Your task to perform on an android device: open app "eBay: The shopping marketplace" (install if not already installed) Image 0: 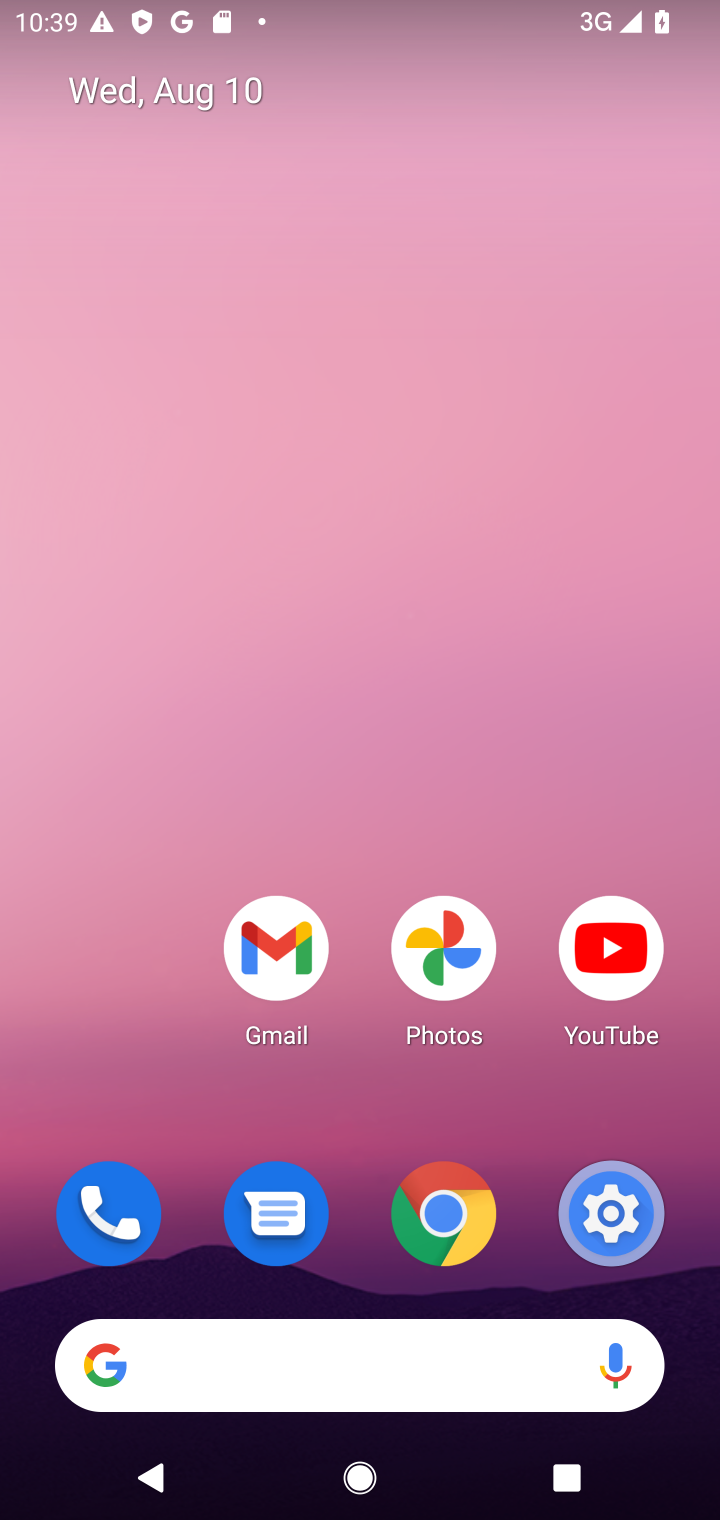
Step 0: drag from (397, 1239) to (465, 39)
Your task to perform on an android device: open app "eBay: The shopping marketplace" (install if not already installed) Image 1: 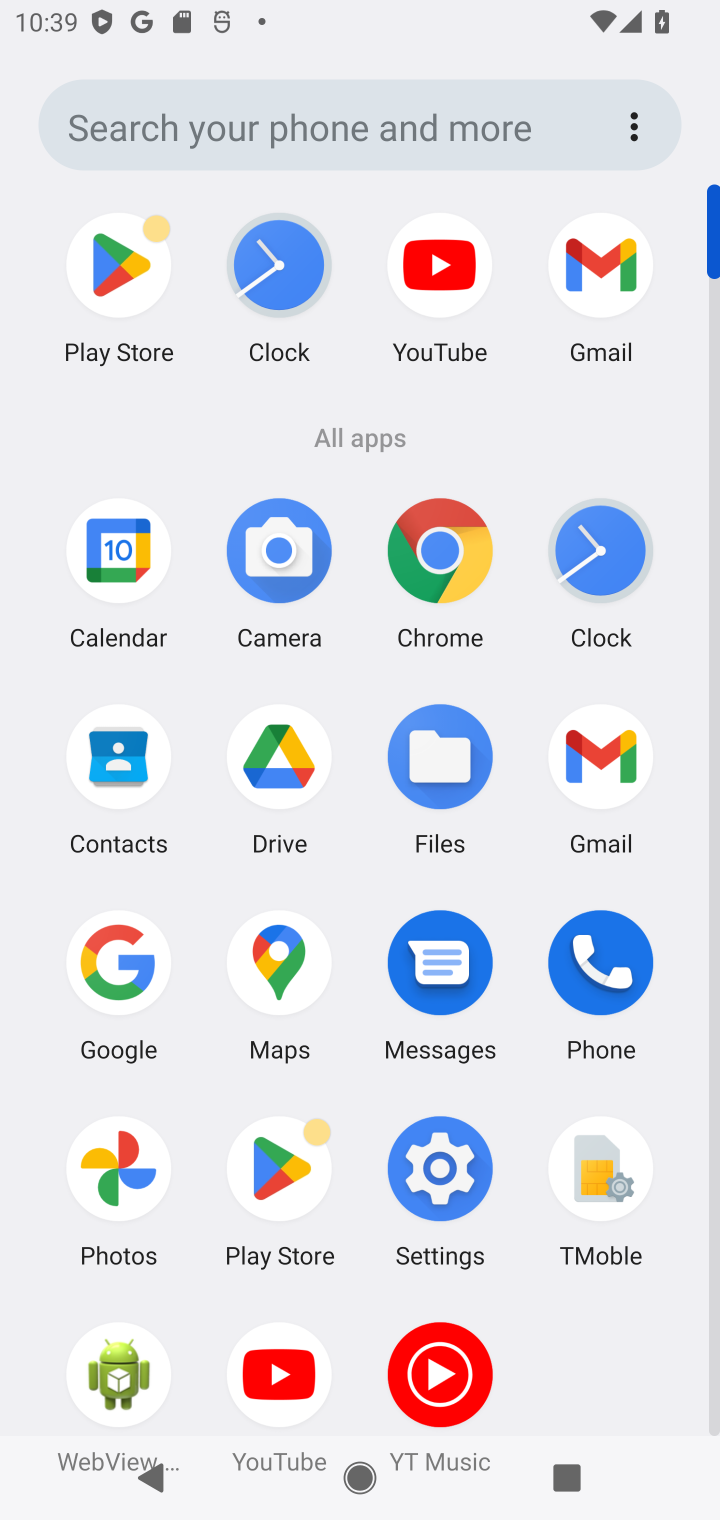
Step 1: click (127, 276)
Your task to perform on an android device: open app "eBay: The shopping marketplace" (install if not already installed) Image 2: 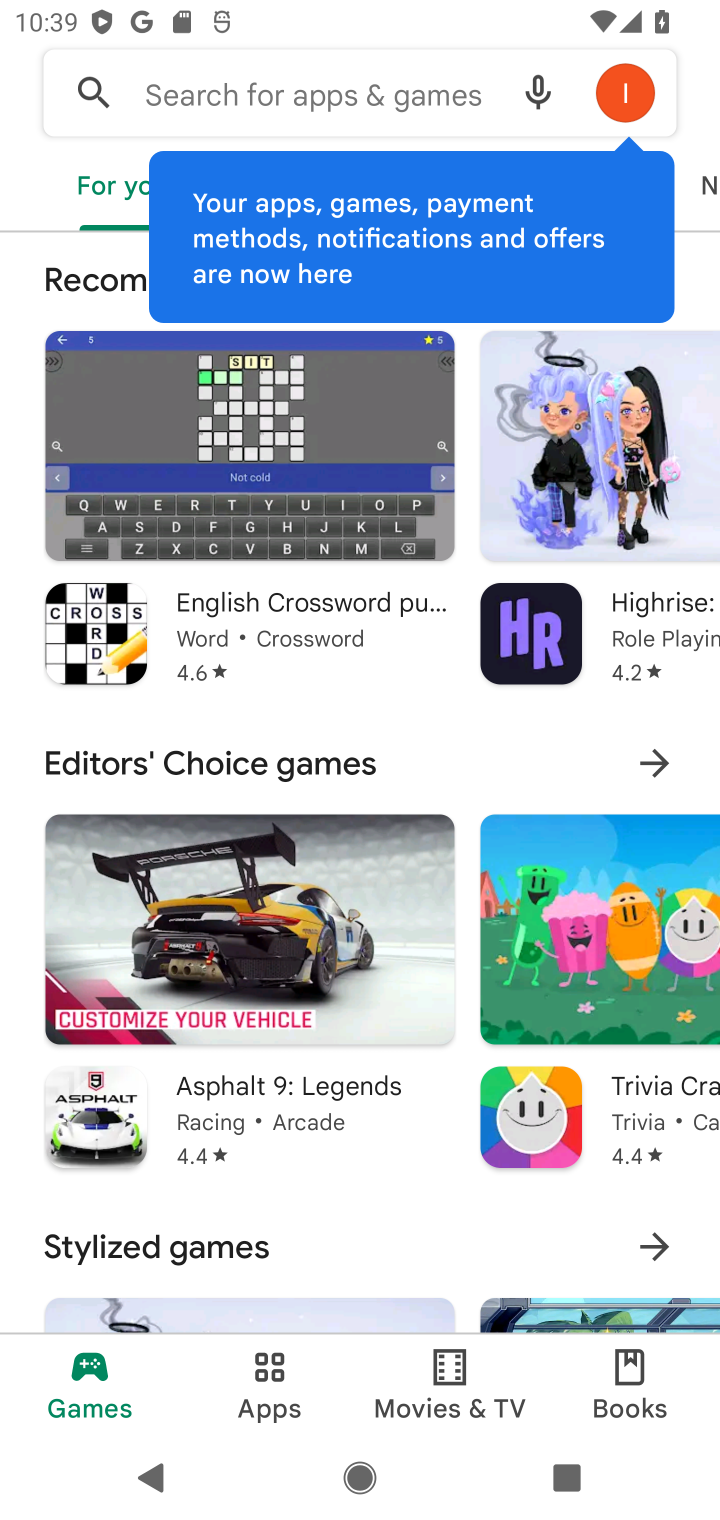
Step 2: click (386, 92)
Your task to perform on an android device: open app "eBay: The shopping marketplace" (install if not already installed) Image 3: 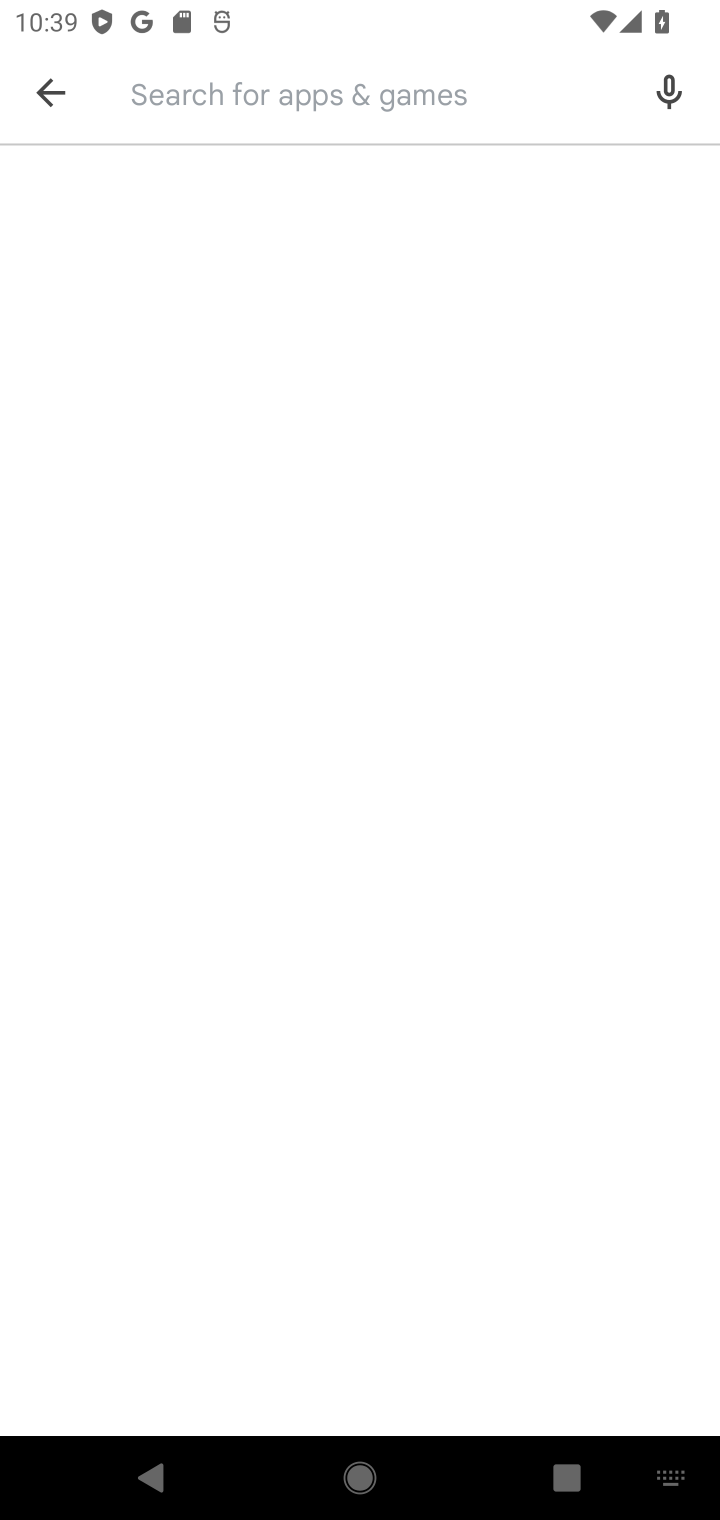
Step 3: click (285, 109)
Your task to perform on an android device: open app "eBay: The shopping marketplace" (install if not already installed) Image 4: 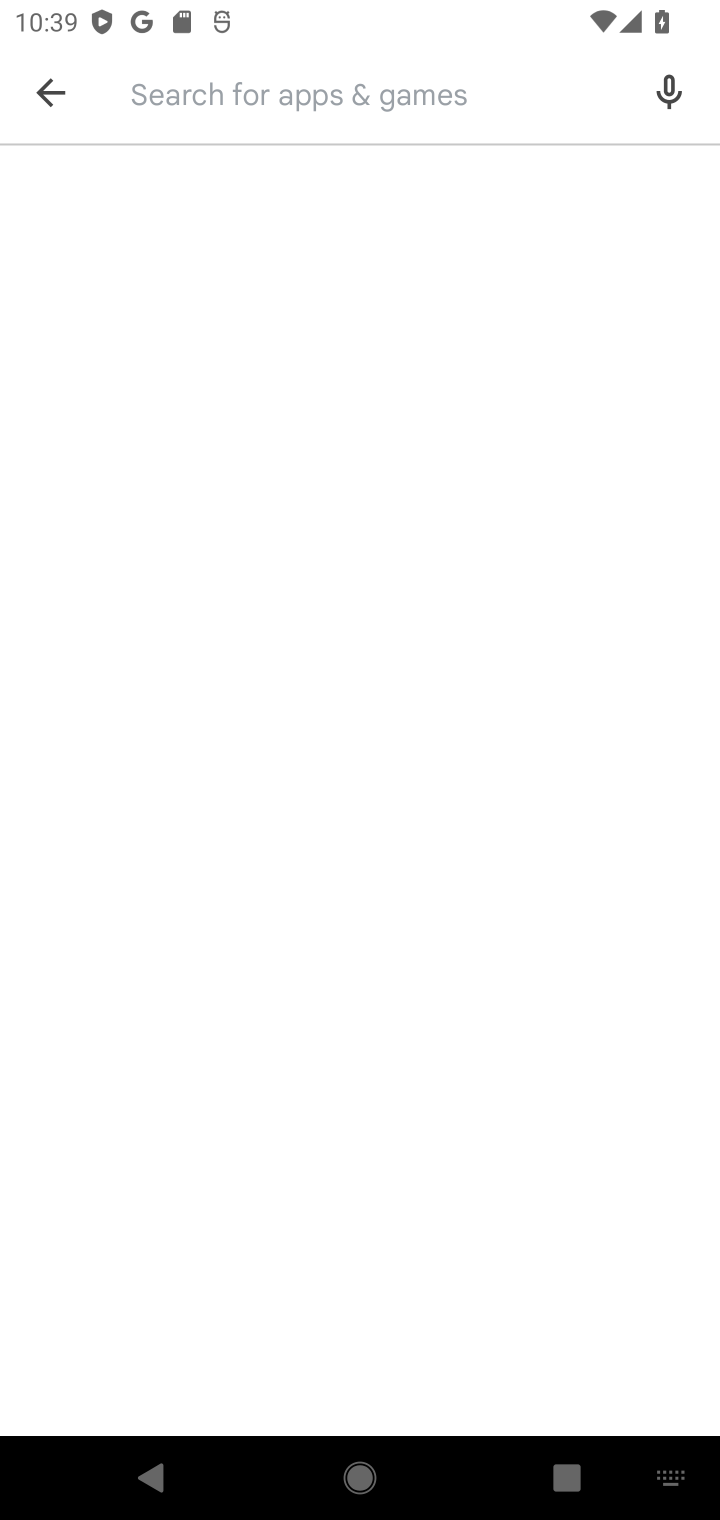
Step 4: type "eBay: The shopping marketplace"
Your task to perform on an android device: open app "eBay: The shopping marketplace" (install if not already installed) Image 5: 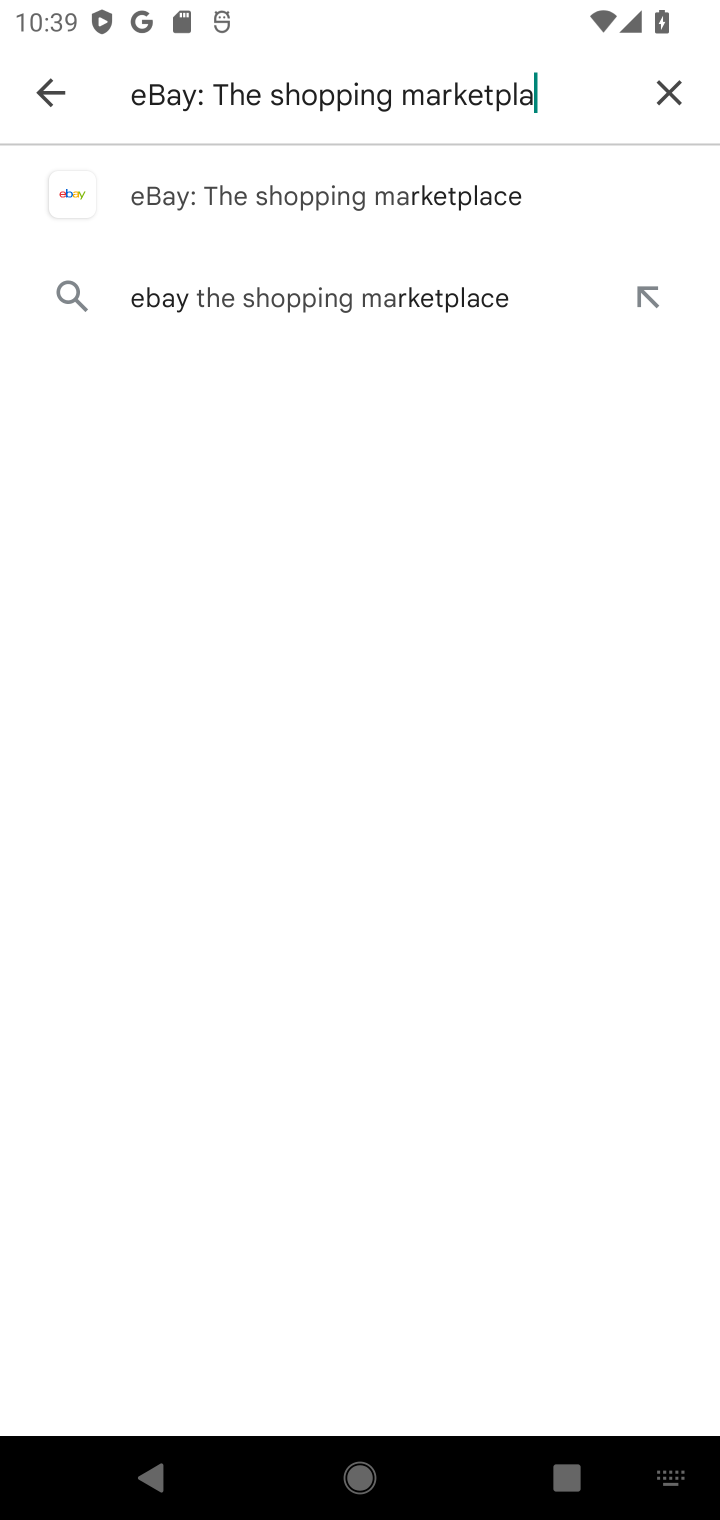
Step 5: type ""
Your task to perform on an android device: open app "eBay: The shopping marketplace" (install if not already installed) Image 6: 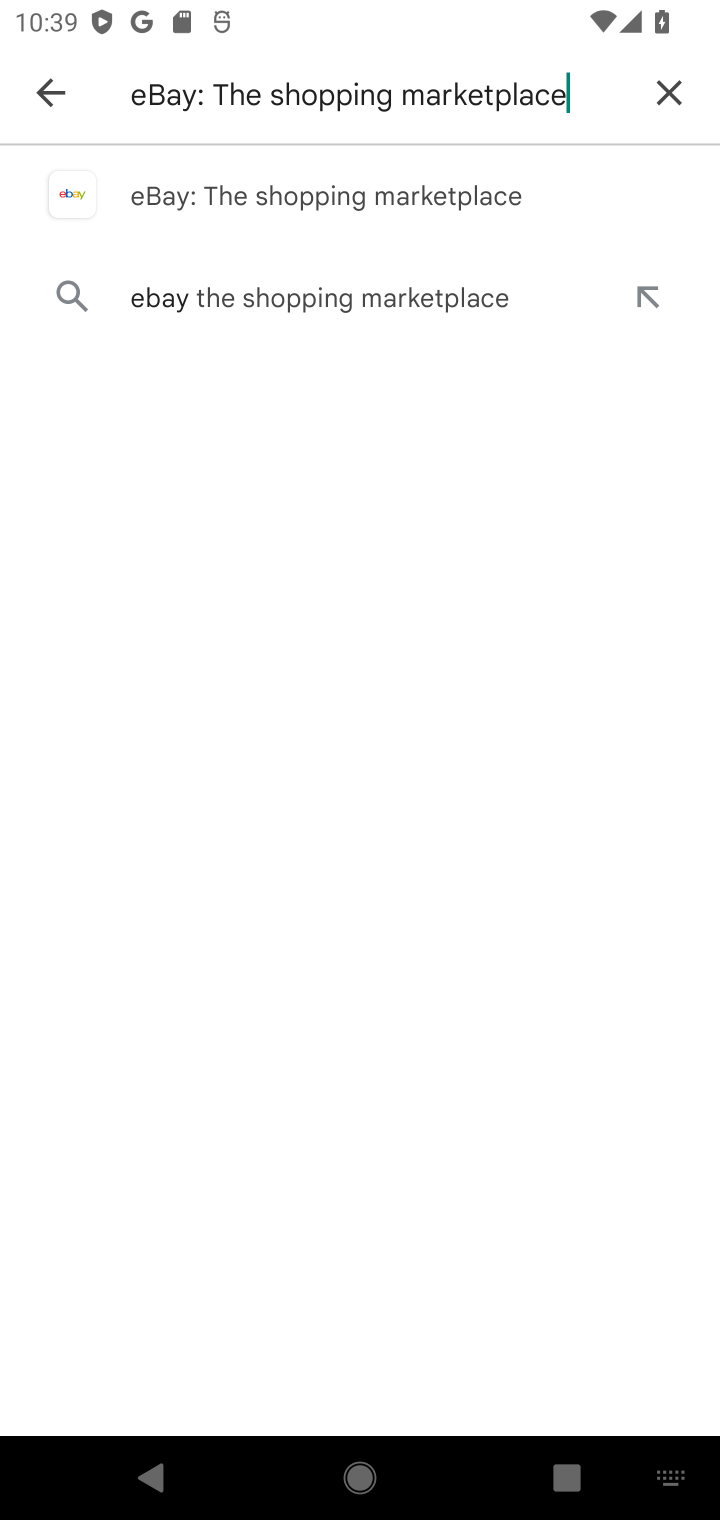
Step 6: click (386, 209)
Your task to perform on an android device: open app "eBay: The shopping marketplace" (install if not already installed) Image 7: 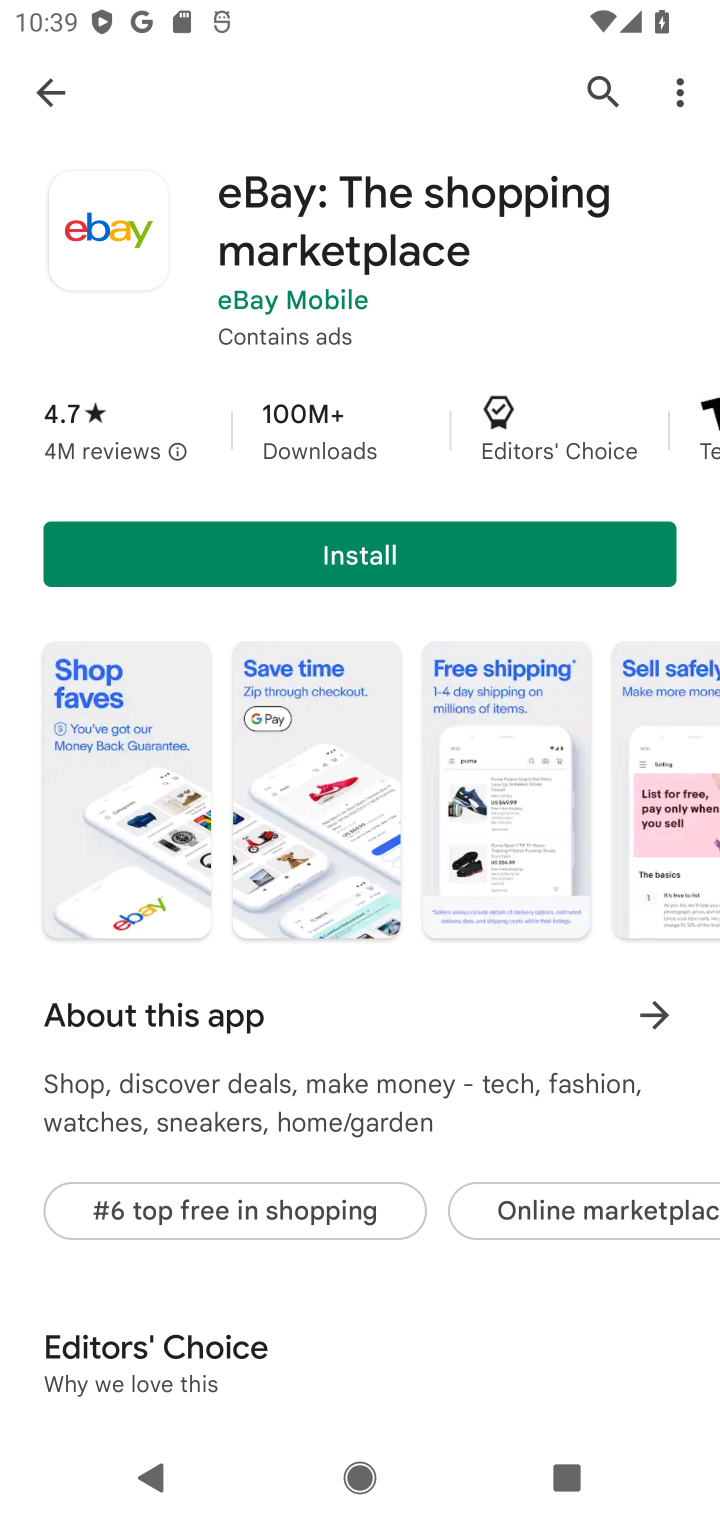
Step 7: click (340, 571)
Your task to perform on an android device: open app "eBay: The shopping marketplace" (install if not already installed) Image 8: 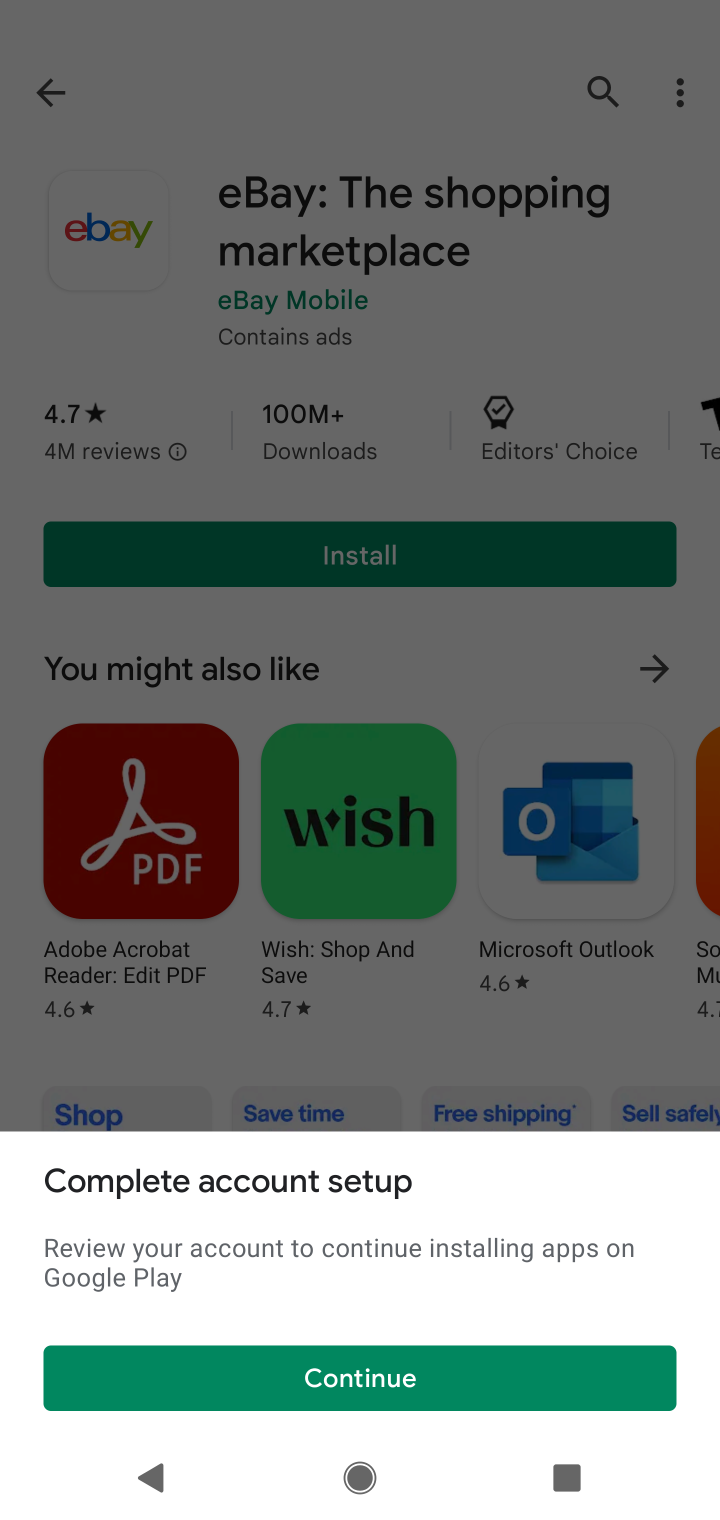
Step 8: click (376, 1388)
Your task to perform on an android device: open app "eBay: The shopping marketplace" (install if not already installed) Image 9: 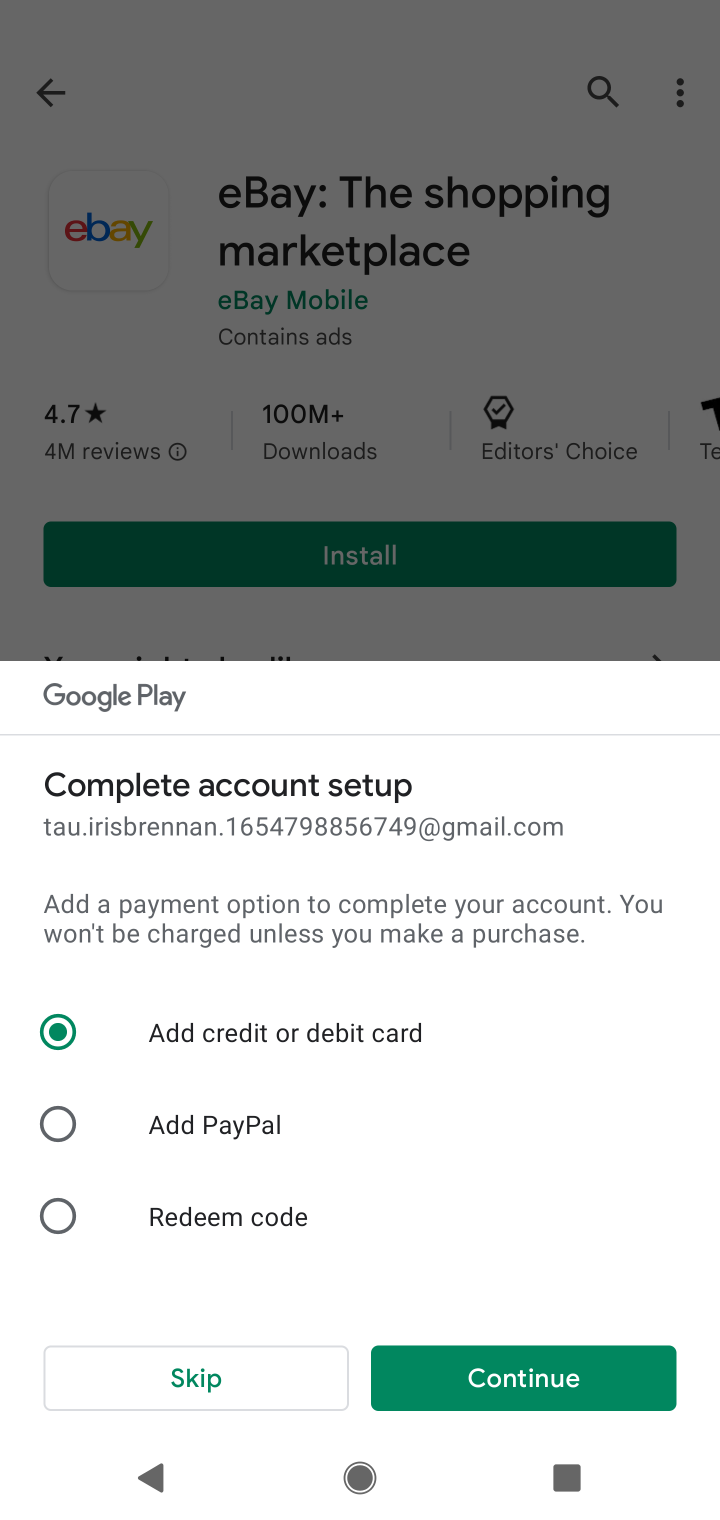
Step 9: click (202, 1374)
Your task to perform on an android device: open app "eBay: The shopping marketplace" (install if not already installed) Image 10: 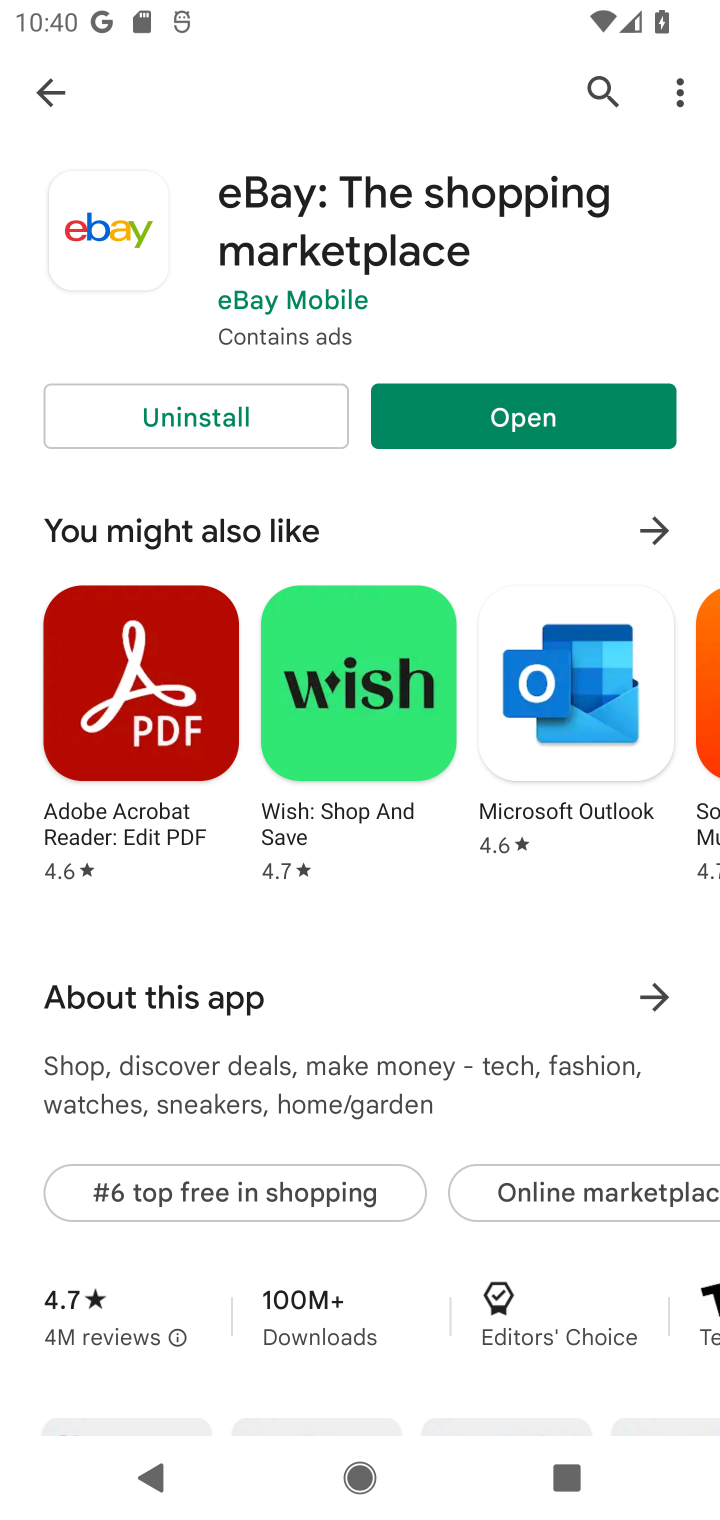
Step 10: click (581, 416)
Your task to perform on an android device: open app "eBay: The shopping marketplace" (install if not already installed) Image 11: 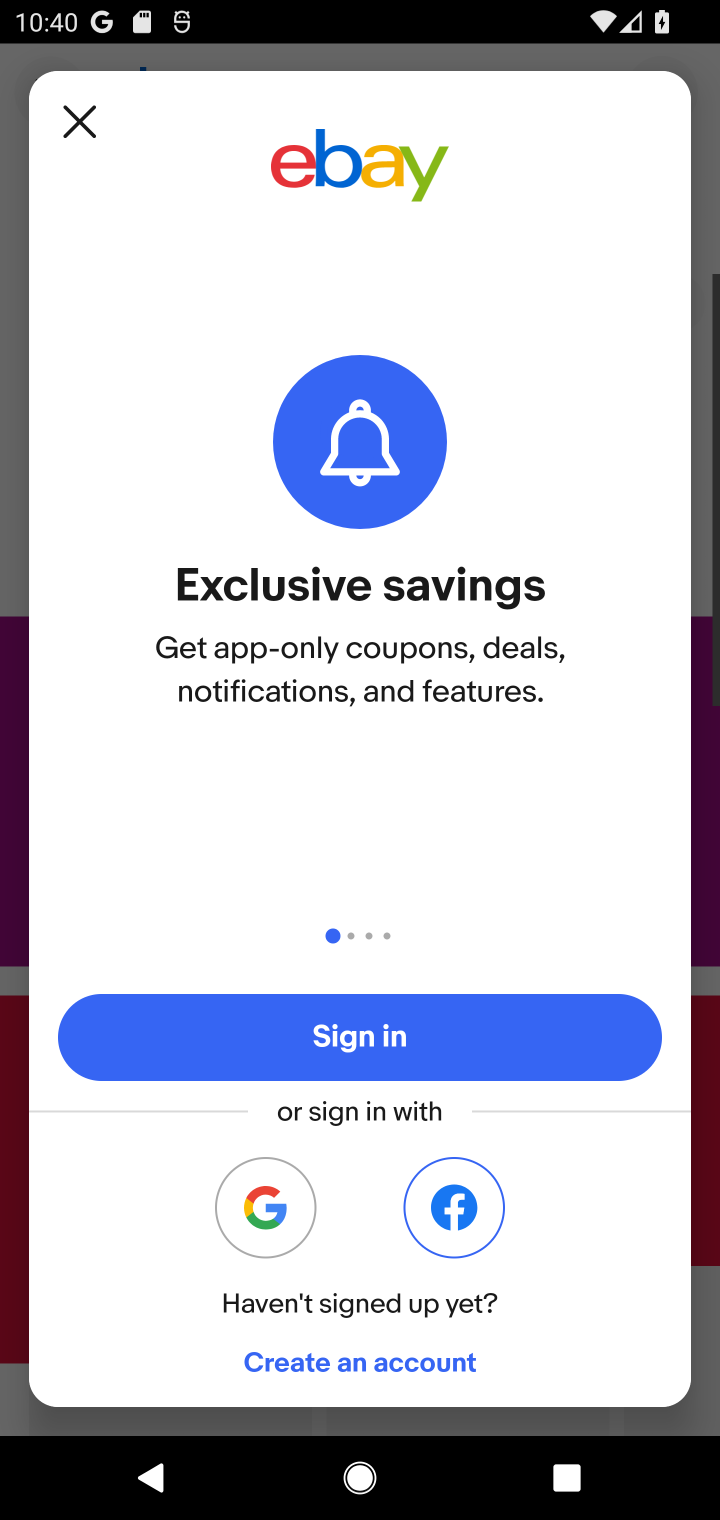
Step 11: task complete